Your task to perform on an android device: see tabs open on other devices in the chrome app Image 0: 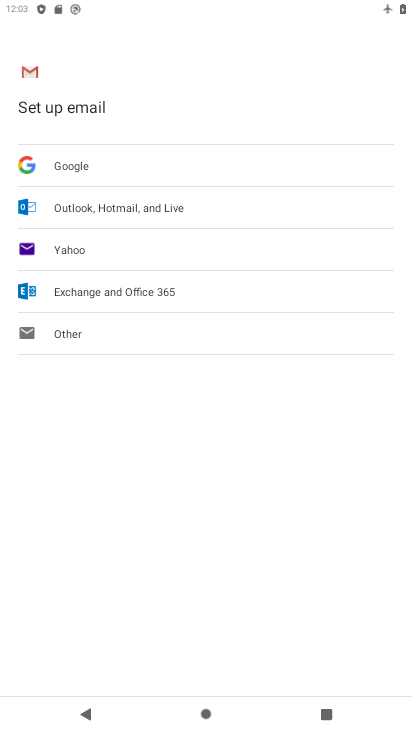
Step 0: press home button
Your task to perform on an android device: see tabs open on other devices in the chrome app Image 1: 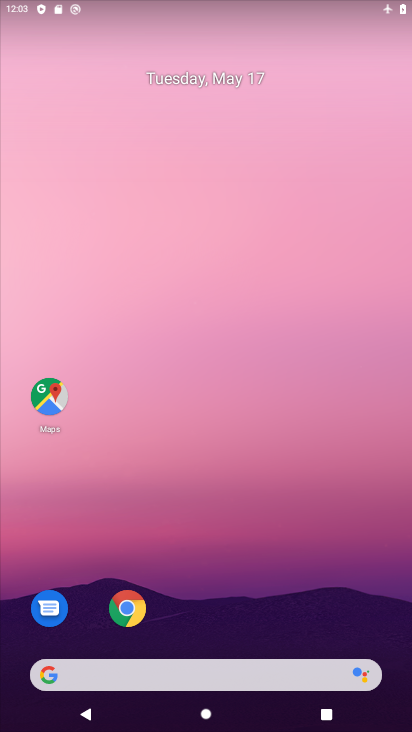
Step 1: drag from (195, 621) to (192, 143)
Your task to perform on an android device: see tabs open on other devices in the chrome app Image 2: 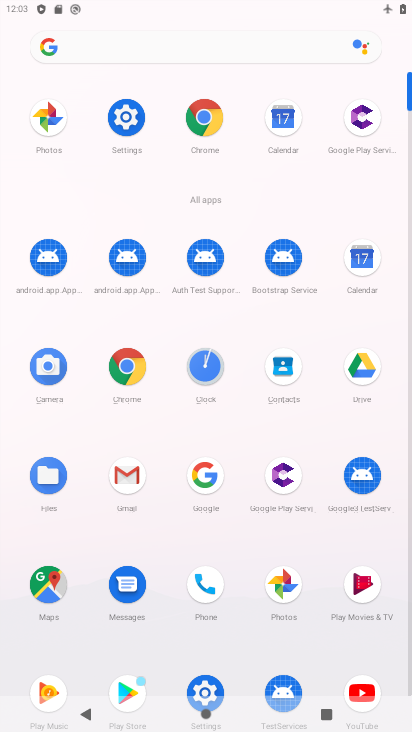
Step 2: click (128, 388)
Your task to perform on an android device: see tabs open on other devices in the chrome app Image 3: 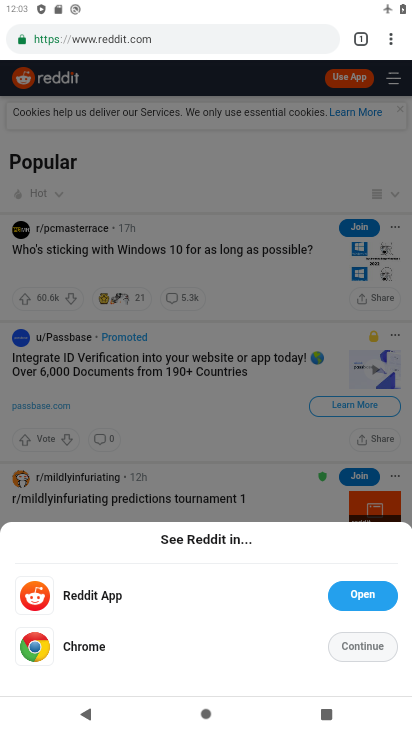
Step 3: click (372, 655)
Your task to perform on an android device: see tabs open on other devices in the chrome app Image 4: 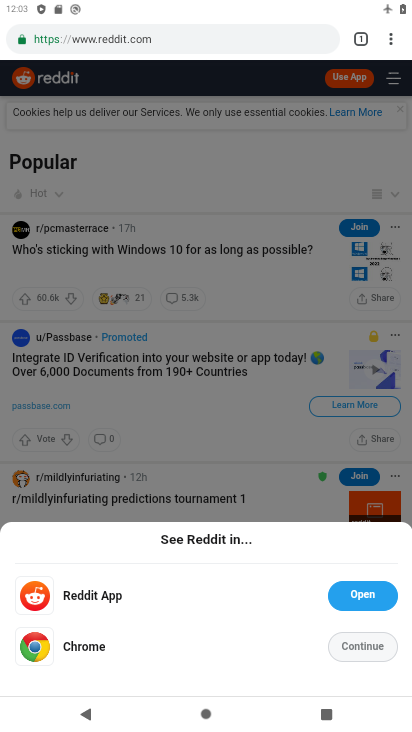
Step 4: click (394, 40)
Your task to perform on an android device: see tabs open on other devices in the chrome app Image 5: 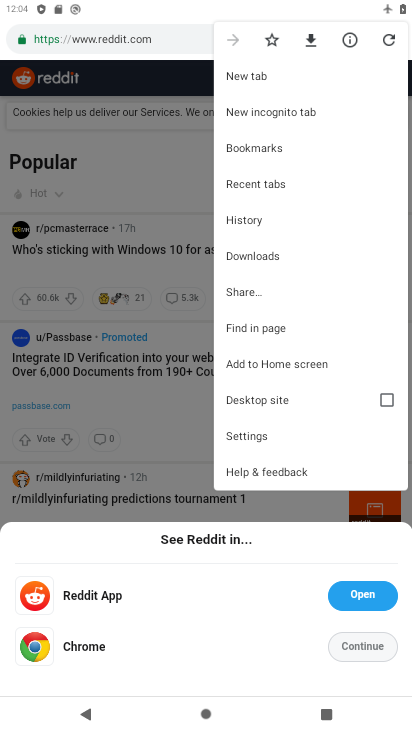
Step 5: click (271, 187)
Your task to perform on an android device: see tabs open on other devices in the chrome app Image 6: 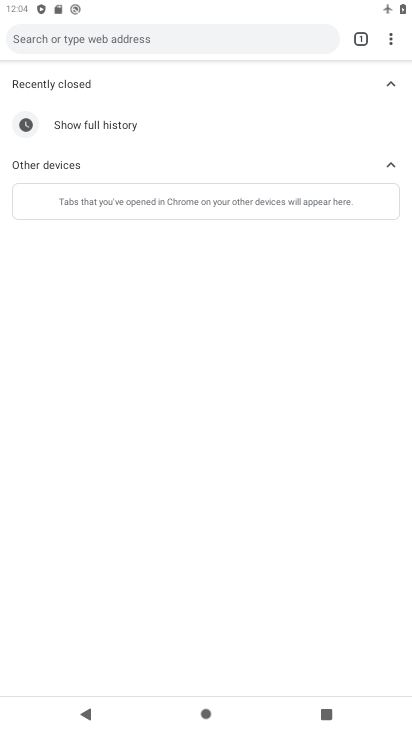
Step 6: task complete